Your task to perform on an android device: change the clock display to analog Image 0: 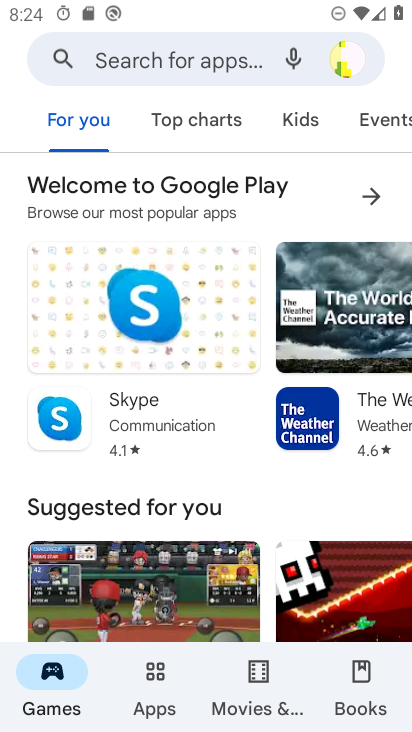
Step 0: press home button
Your task to perform on an android device: change the clock display to analog Image 1: 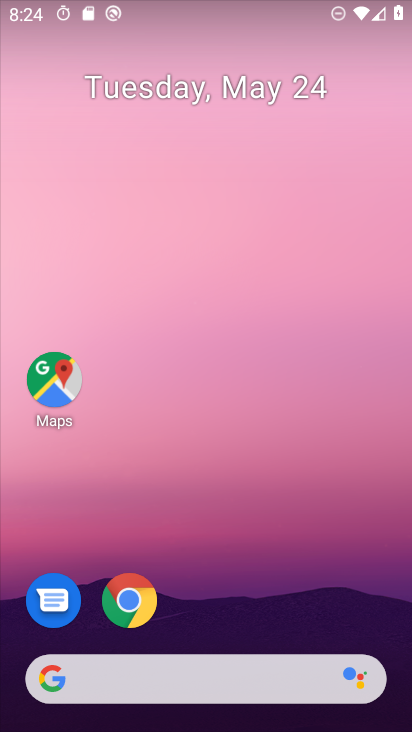
Step 1: drag from (231, 618) to (287, 13)
Your task to perform on an android device: change the clock display to analog Image 2: 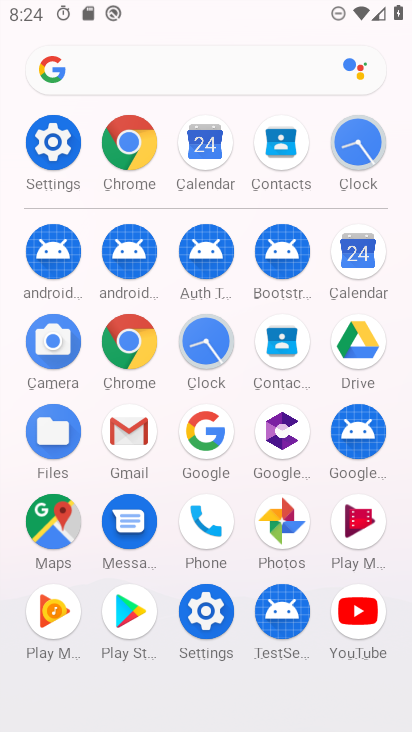
Step 2: click (205, 356)
Your task to perform on an android device: change the clock display to analog Image 3: 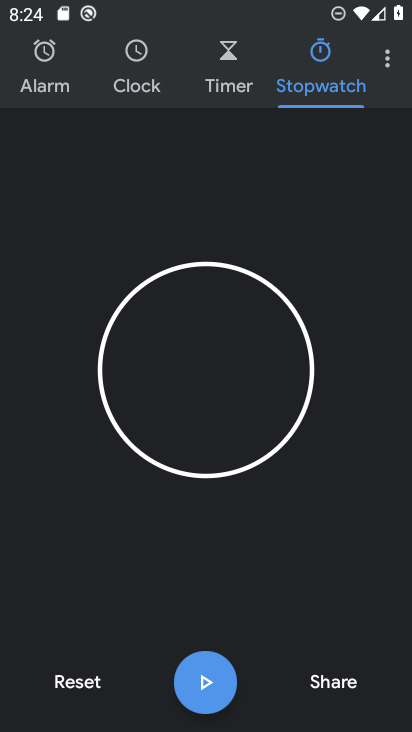
Step 3: click (388, 52)
Your task to perform on an android device: change the clock display to analog Image 4: 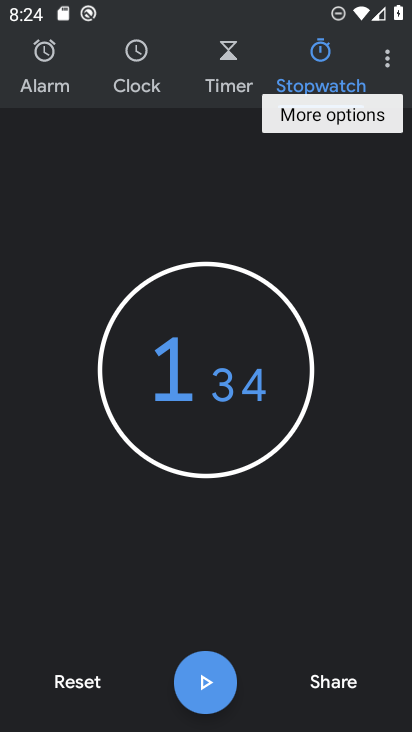
Step 4: click (385, 57)
Your task to perform on an android device: change the clock display to analog Image 5: 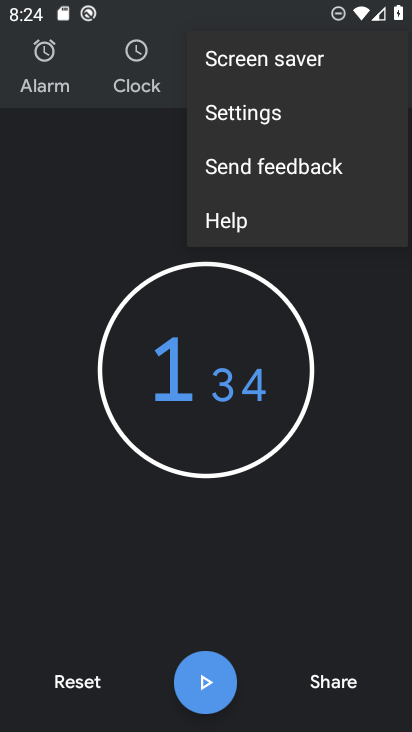
Step 5: click (283, 118)
Your task to perform on an android device: change the clock display to analog Image 6: 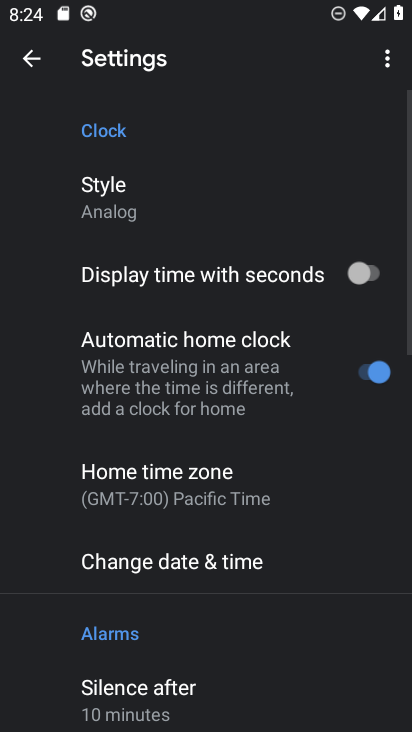
Step 6: click (146, 227)
Your task to perform on an android device: change the clock display to analog Image 7: 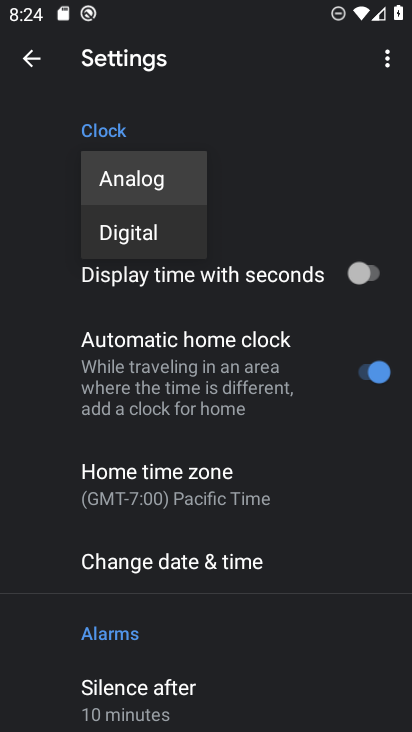
Step 7: click (142, 173)
Your task to perform on an android device: change the clock display to analog Image 8: 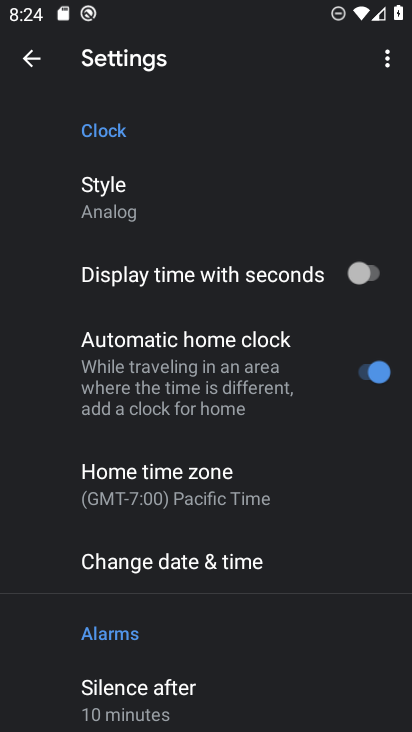
Step 8: task complete